Your task to perform on an android device: change timer sound Image 0: 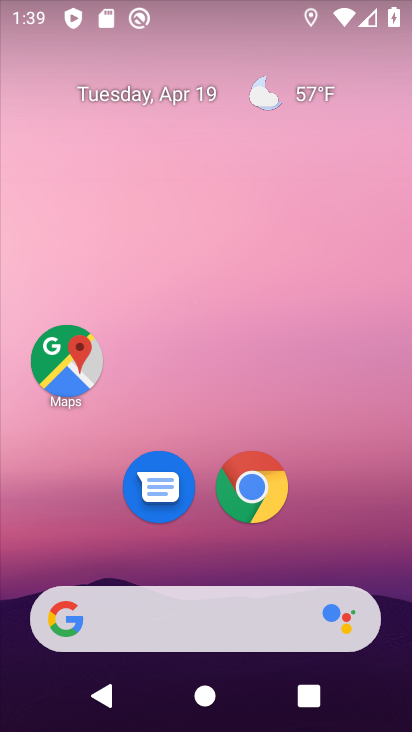
Step 0: drag from (357, 520) to (348, 111)
Your task to perform on an android device: change timer sound Image 1: 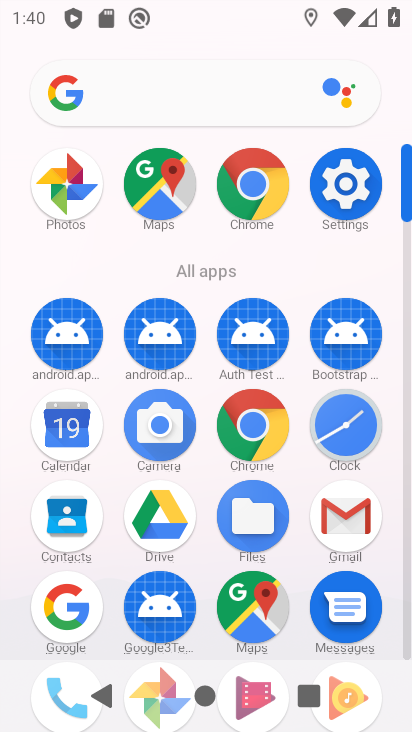
Step 1: click (349, 437)
Your task to perform on an android device: change timer sound Image 2: 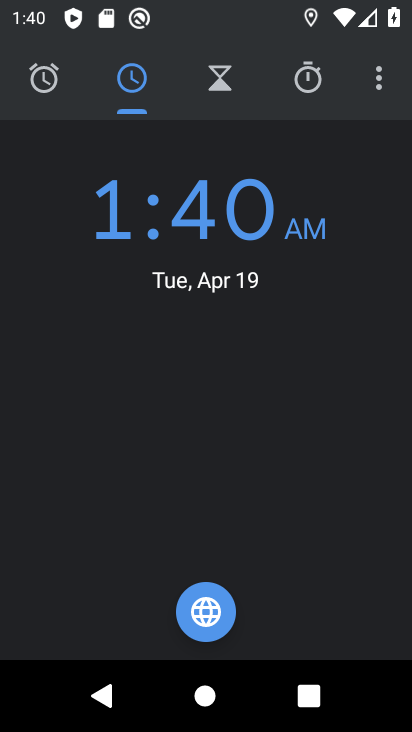
Step 2: click (379, 83)
Your task to perform on an android device: change timer sound Image 3: 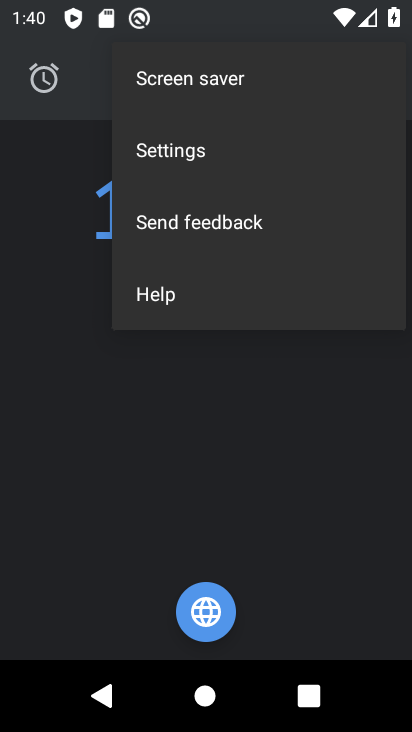
Step 3: click (270, 139)
Your task to perform on an android device: change timer sound Image 4: 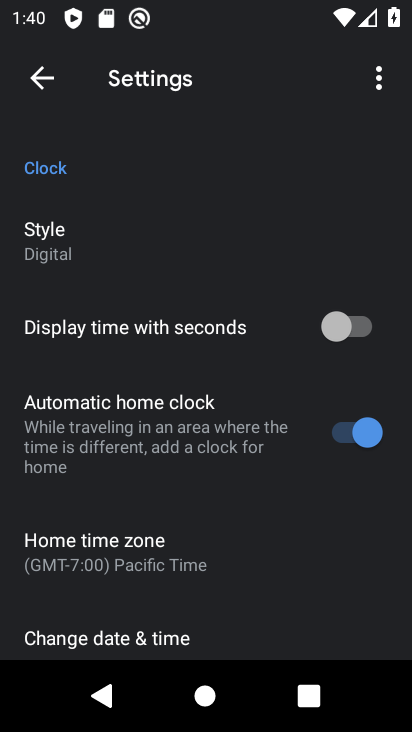
Step 4: drag from (291, 576) to (259, 129)
Your task to perform on an android device: change timer sound Image 5: 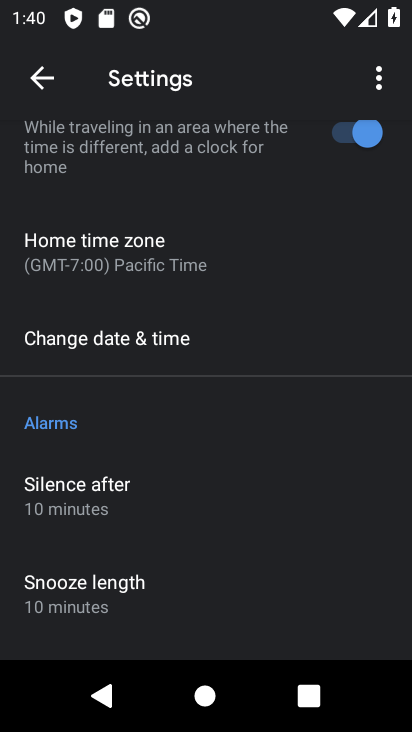
Step 5: drag from (177, 535) to (215, 218)
Your task to perform on an android device: change timer sound Image 6: 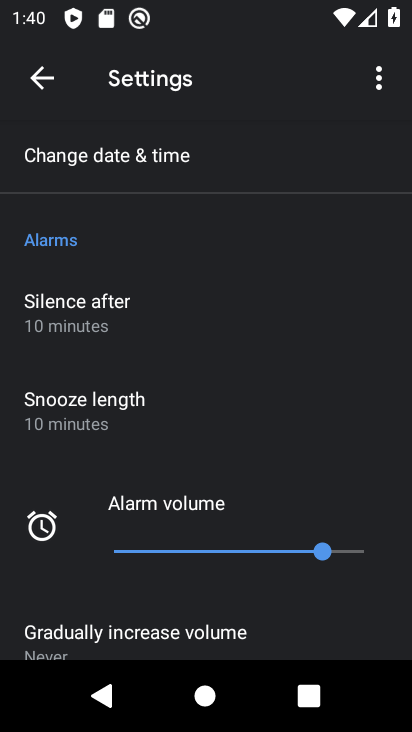
Step 6: drag from (247, 595) to (239, 286)
Your task to perform on an android device: change timer sound Image 7: 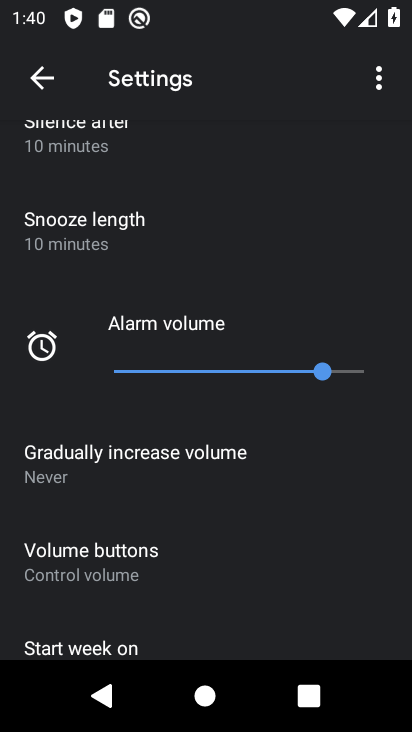
Step 7: drag from (225, 581) to (253, 196)
Your task to perform on an android device: change timer sound Image 8: 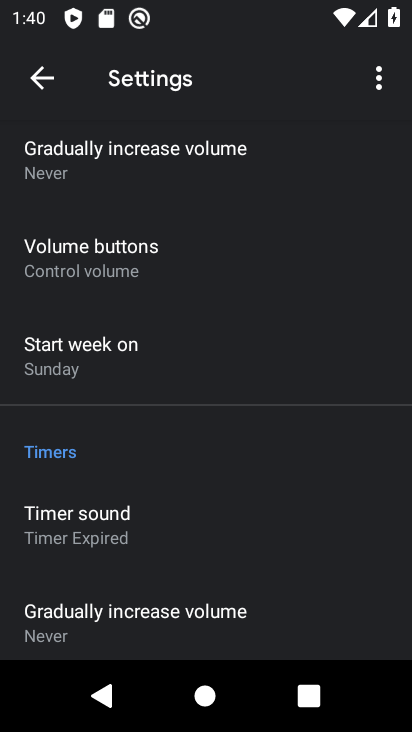
Step 8: click (131, 505)
Your task to perform on an android device: change timer sound Image 9: 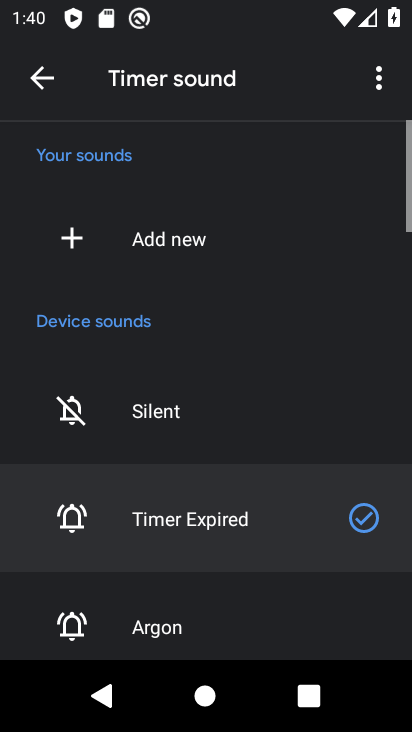
Step 9: click (112, 619)
Your task to perform on an android device: change timer sound Image 10: 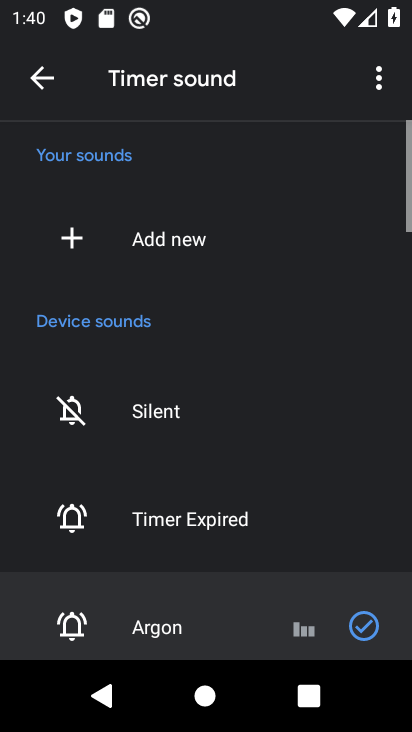
Step 10: task complete